Your task to perform on an android device: open app "Contacts" Image 0: 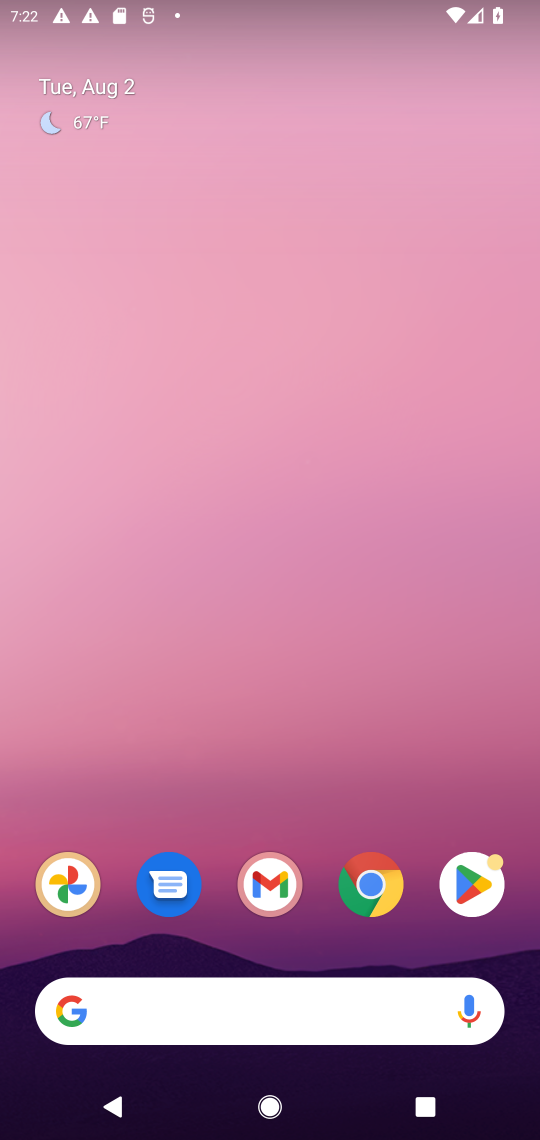
Step 0: press home button
Your task to perform on an android device: open app "Contacts" Image 1: 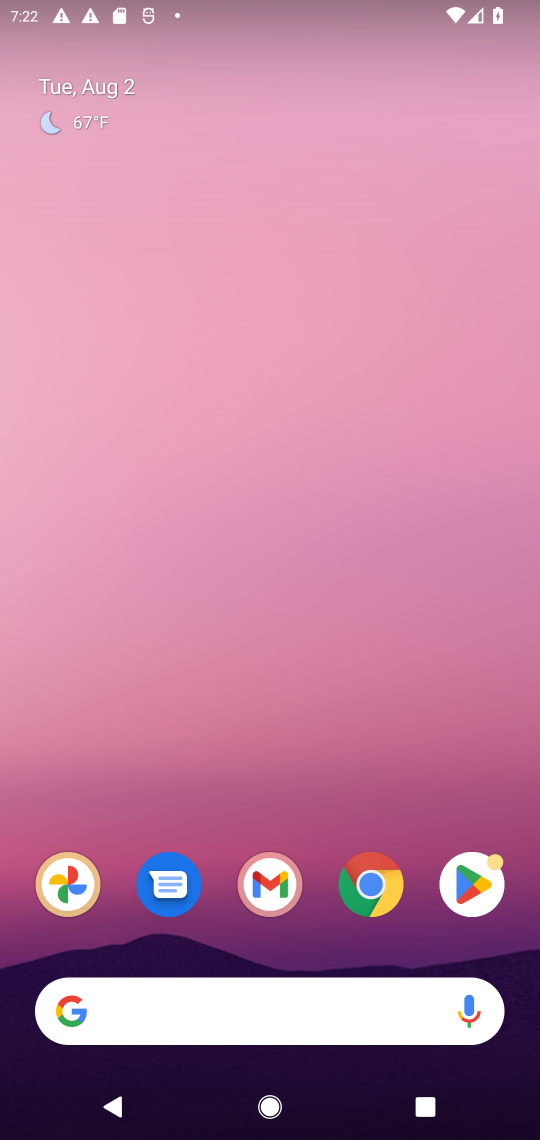
Step 1: click (468, 869)
Your task to perform on an android device: open app "Contacts" Image 2: 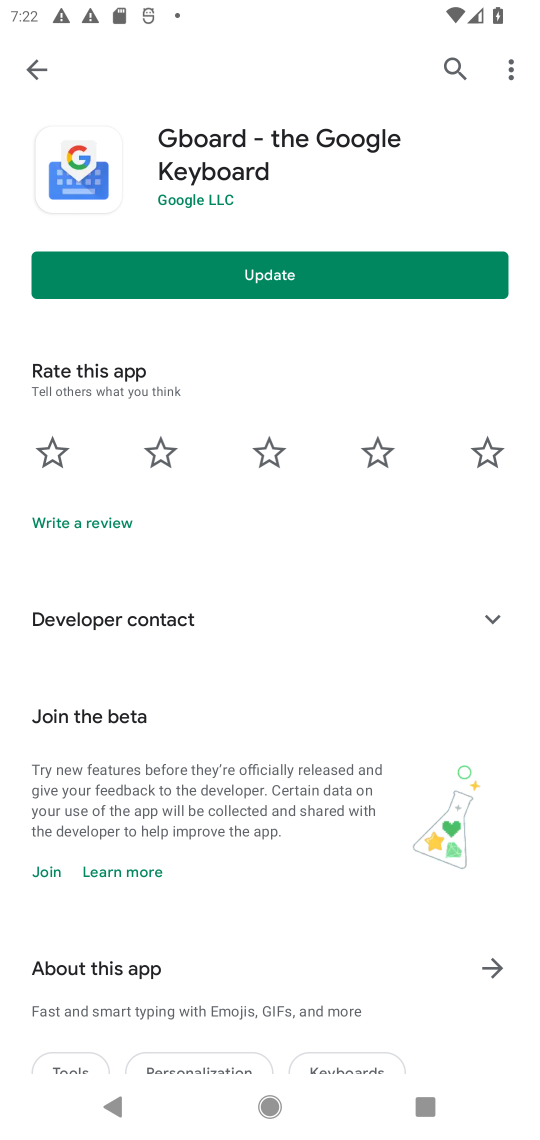
Step 2: click (449, 64)
Your task to perform on an android device: open app "Contacts" Image 3: 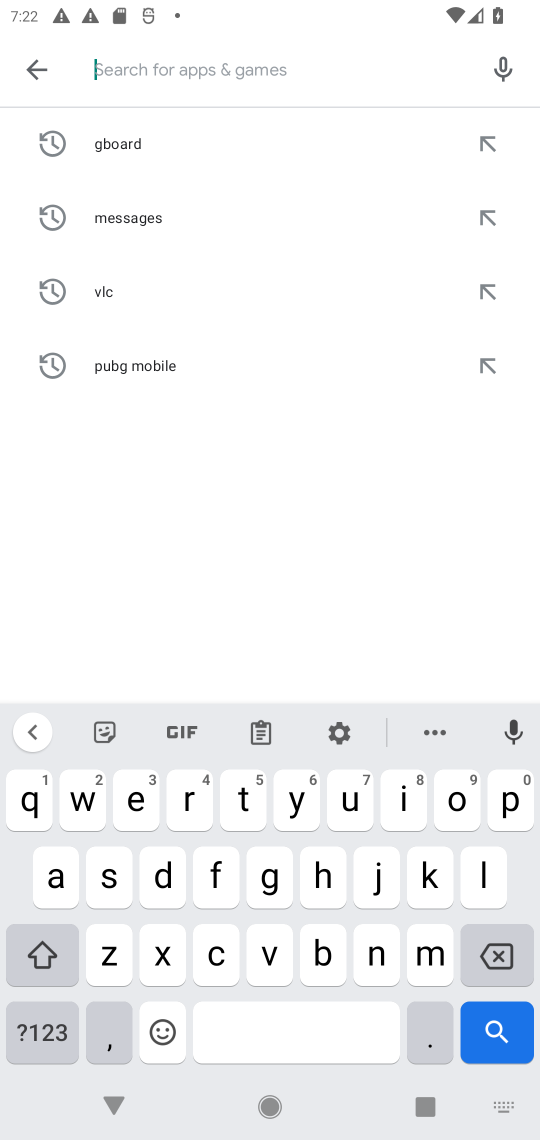
Step 3: click (208, 967)
Your task to perform on an android device: open app "Contacts" Image 4: 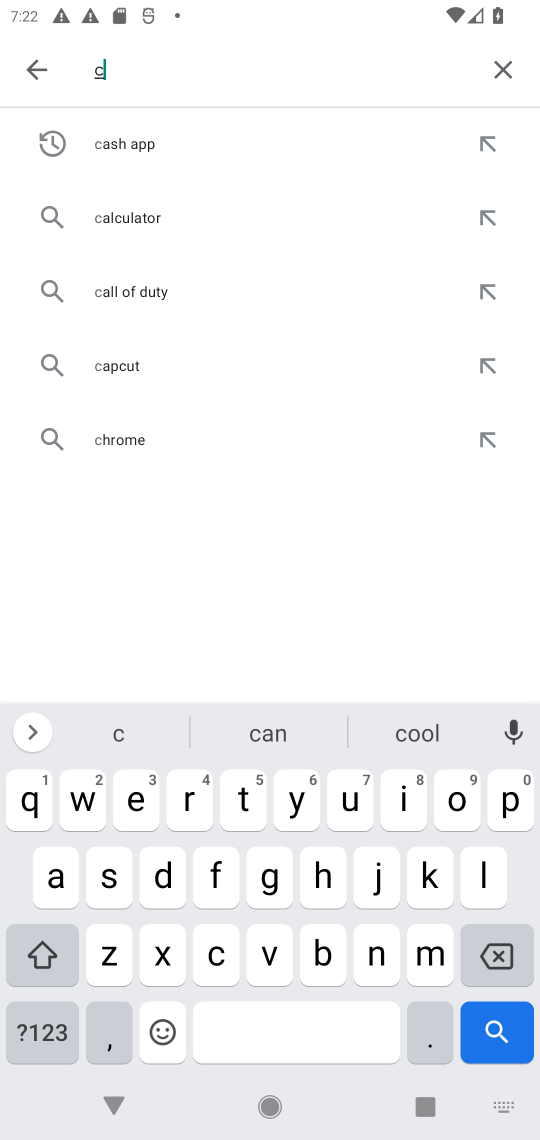
Step 4: click (454, 801)
Your task to perform on an android device: open app "Contacts" Image 5: 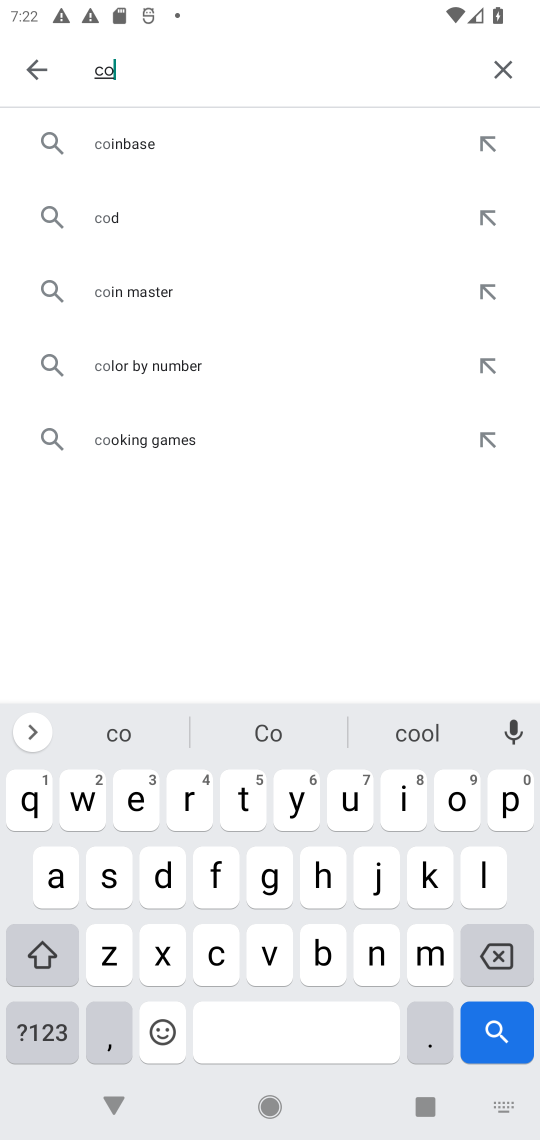
Step 5: click (374, 958)
Your task to perform on an android device: open app "Contacts" Image 6: 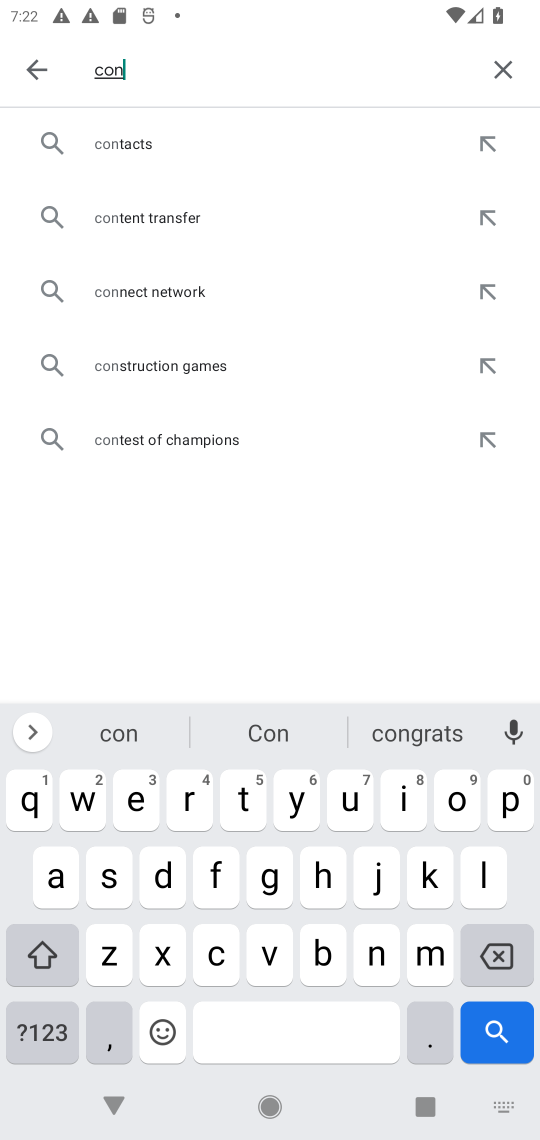
Step 6: click (148, 143)
Your task to perform on an android device: open app "Contacts" Image 7: 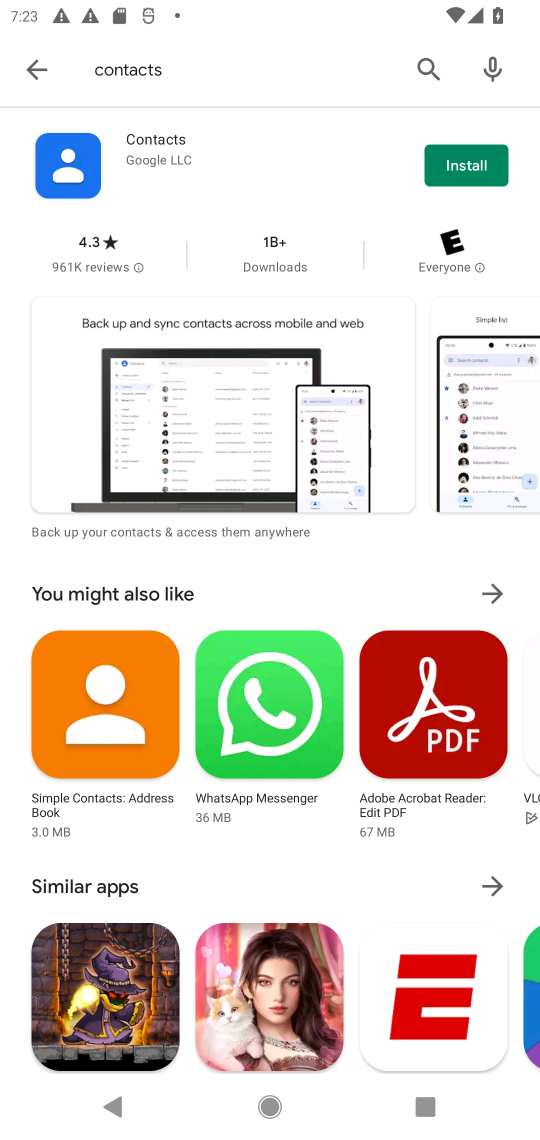
Step 7: task complete